Your task to perform on an android device: Search for macbook pro on walmart, select the first entry, and add it to the cart. Image 0: 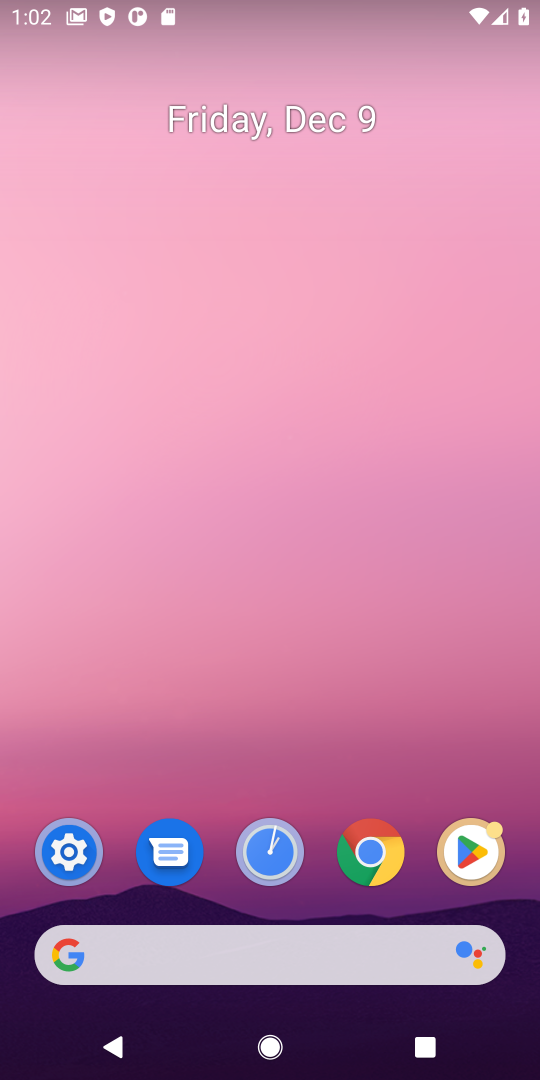
Step 0: click (379, 851)
Your task to perform on an android device: Search for macbook pro on walmart, select the first entry, and add it to the cart. Image 1: 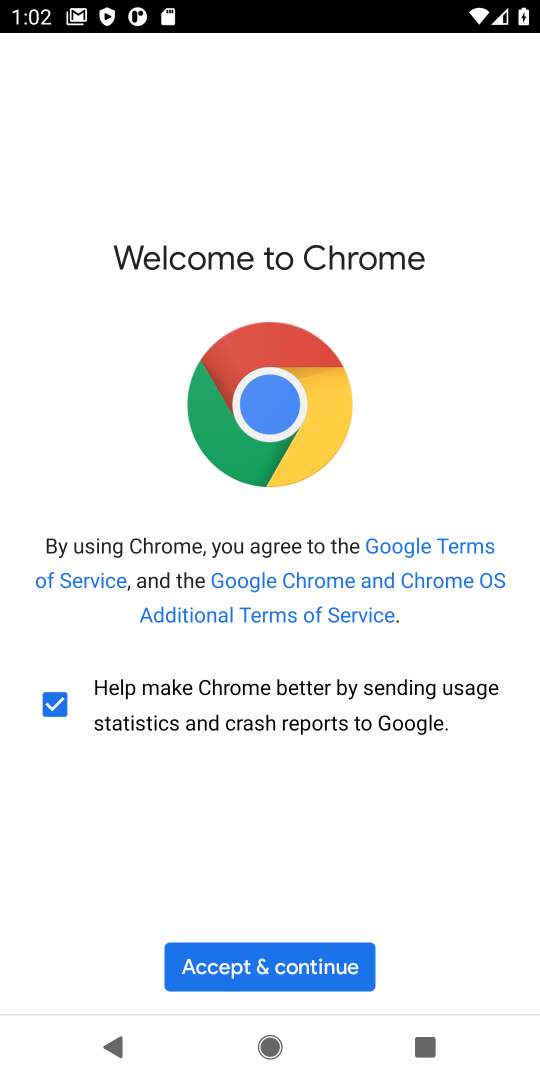
Step 1: click (291, 971)
Your task to perform on an android device: Search for macbook pro on walmart, select the first entry, and add it to the cart. Image 2: 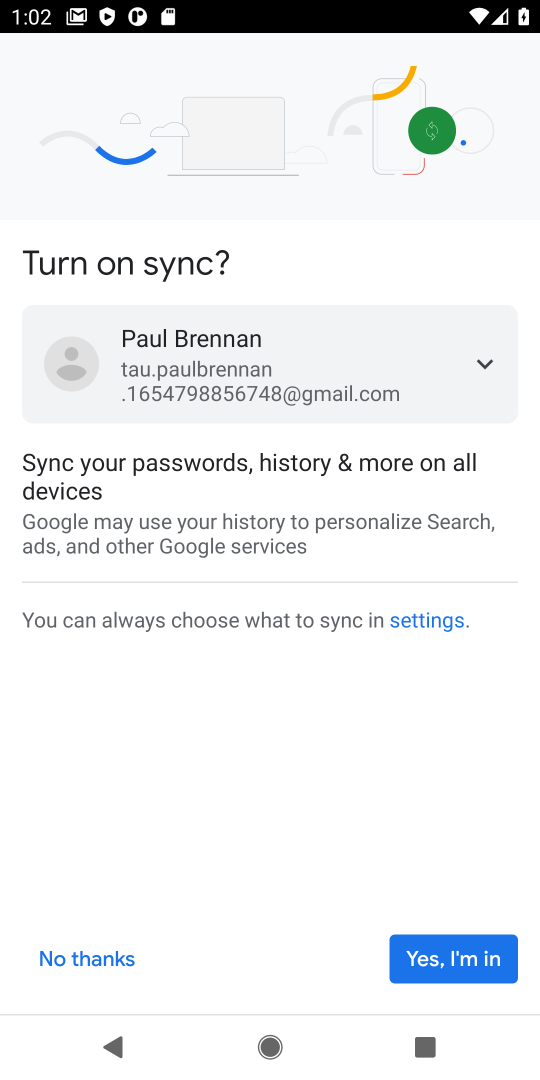
Step 2: click (426, 946)
Your task to perform on an android device: Search for macbook pro on walmart, select the first entry, and add it to the cart. Image 3: 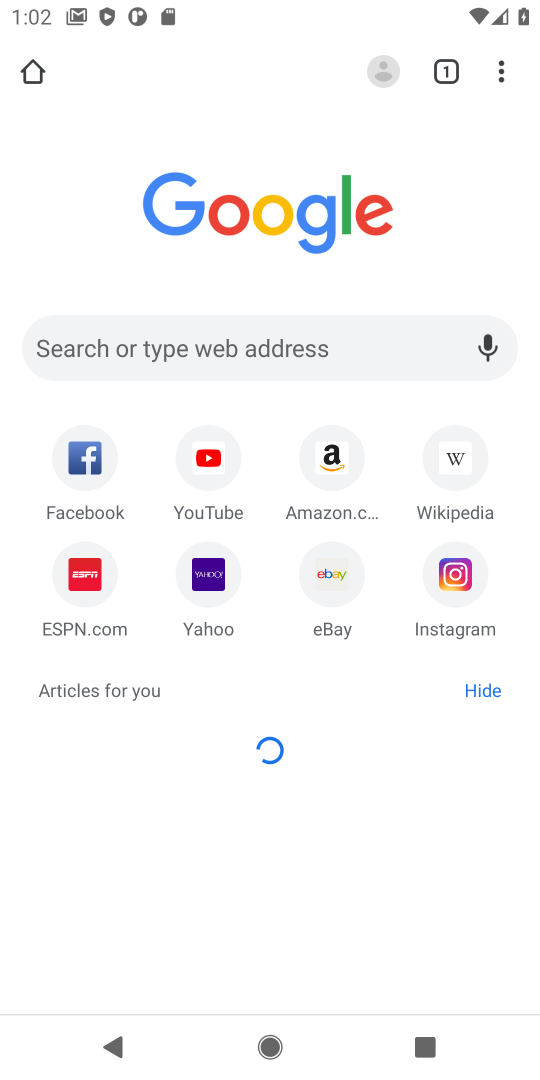
Step 3: click (226, 957)
Your task to perform on an android device: Search for macbook pro on walmart, select the first entry, and add it to the cart. Image 4: 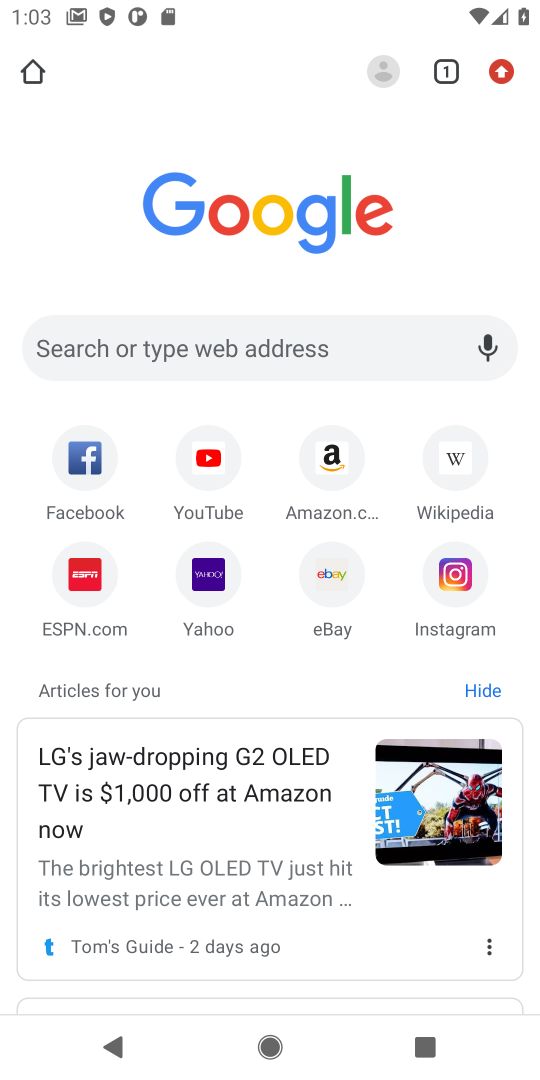
Step 4: click (174, 349)
Your task to perform on an android device: Search for macbook pro on walmart, select the first entry, and add it to the cart. Image 5: 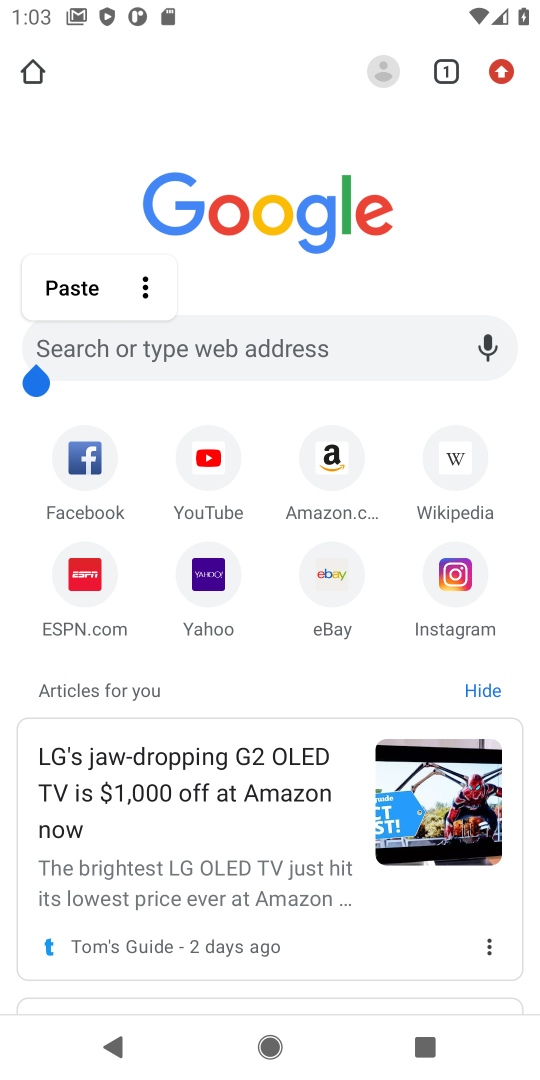
Step 5: click (174, 348)
Your task to perform on an android device: Search for macbook pro on walmart, select the first entry, and add it to the cart. Image 6: 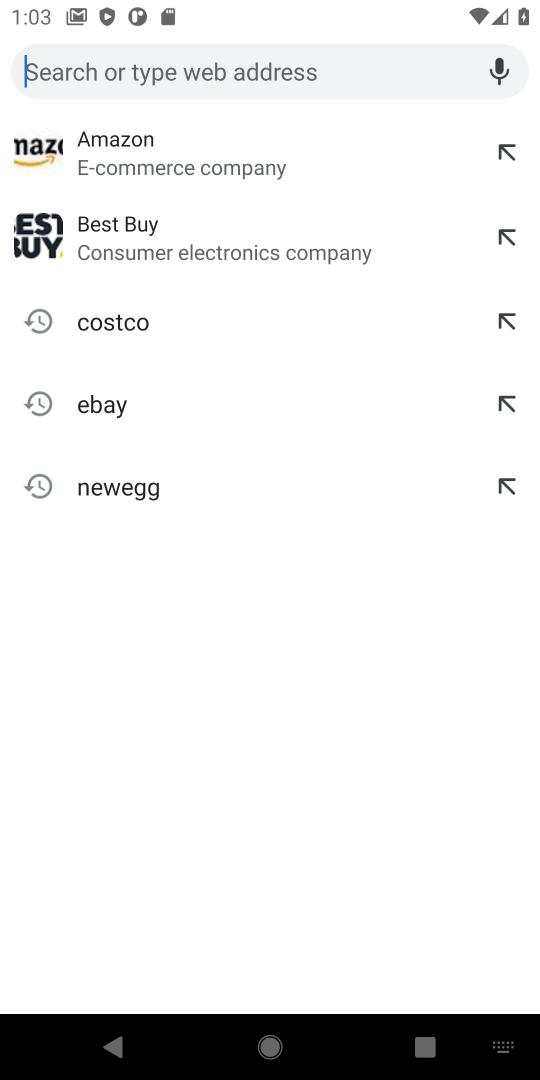
Step 6: type "walmart"
Your task to perform on an android device: Search for macbook pro on walmart, select the first entry, and add it to the cart. Image 7: 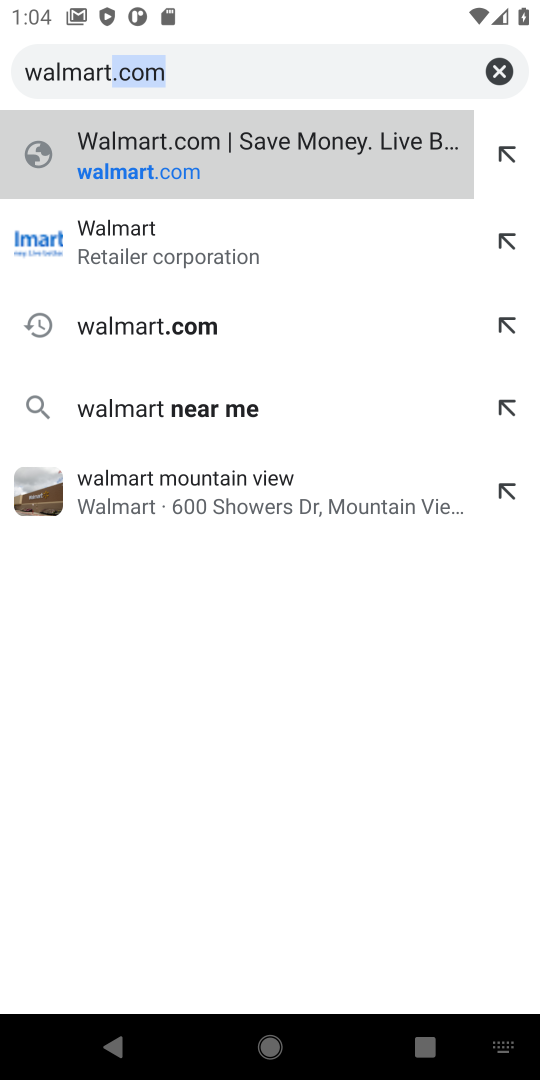
Step 7: click (150, 162)
Your task to perform on an android device: Search for macbook pro on walmart, select the first entry, and add it to the cart. Image 8: 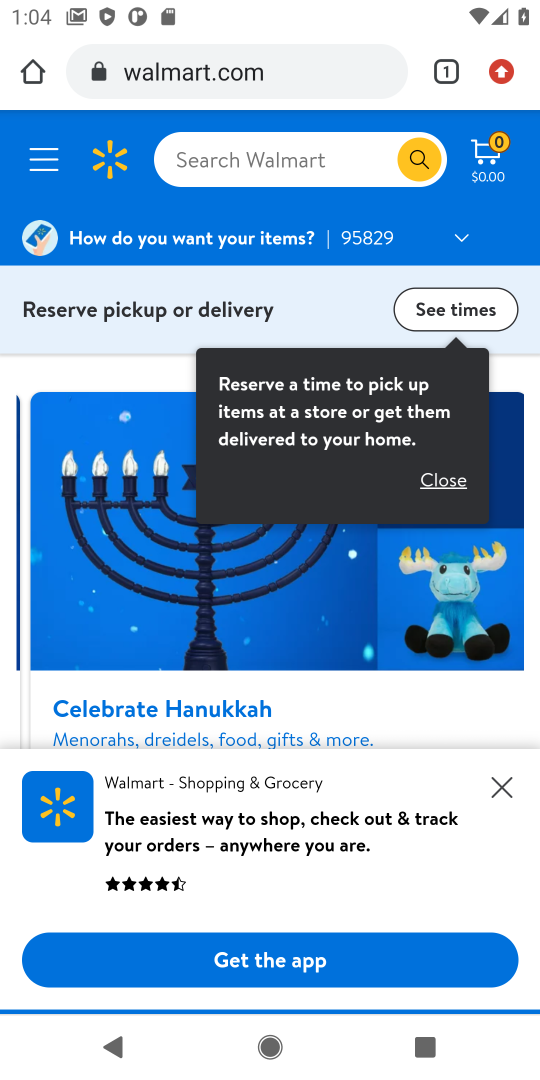
Step 8: click (224, 159)
Your task to perform on an android device: Search for macbook pro on walmart, select the first entry, and add it to the cart. Image 9: 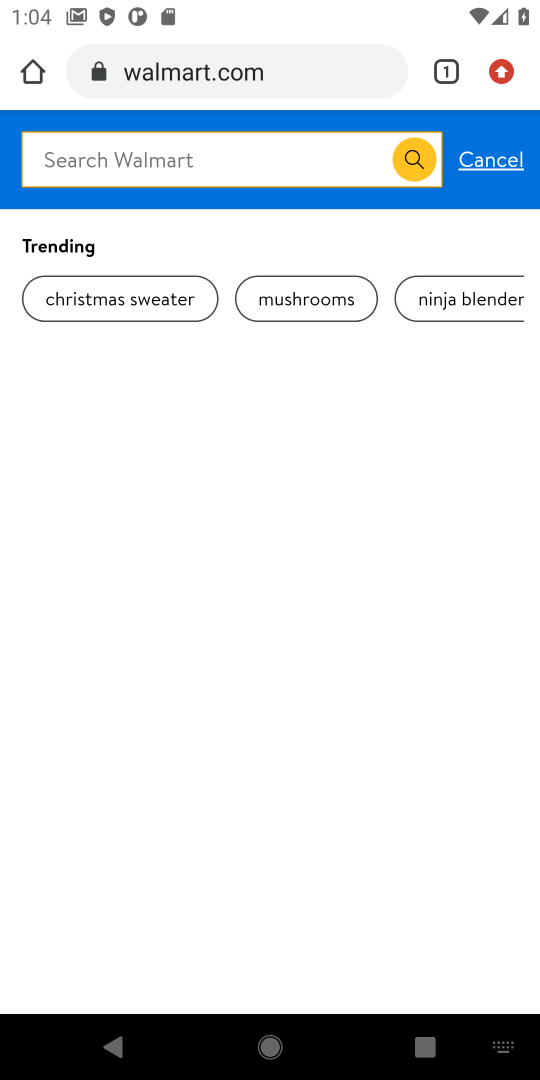
Step 9: type "macbook pro"
Your task to perform on an android device: Search for macbook pro on walmart, select the first entry, and add it to the cart. Image 10: 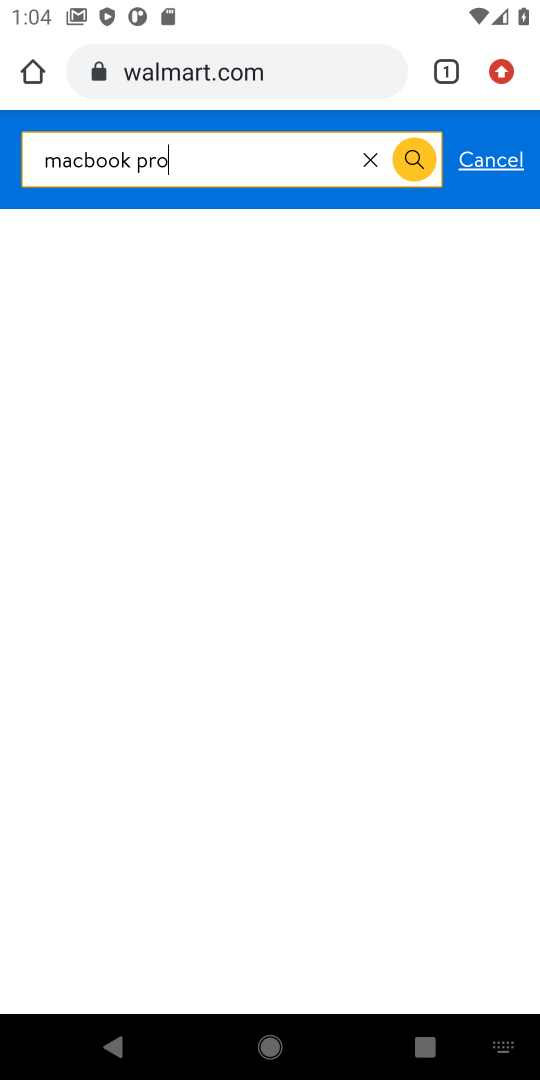
Step 10: press enter
Your task to perform on an android device: Search for macbook pro on walmart, select the first entry, and add it to the cart. Image 11: 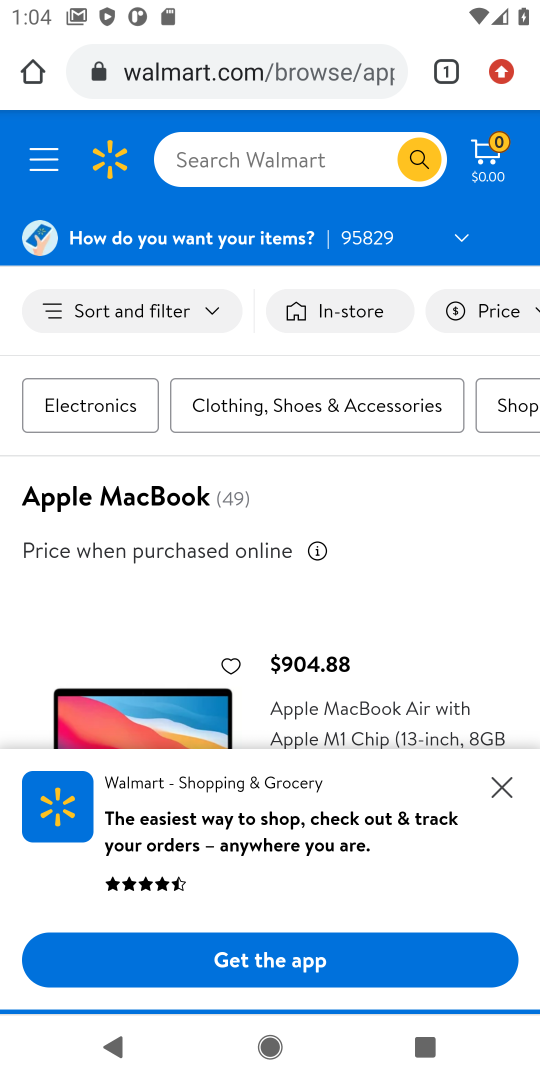
Step 11: drag from (354, 597) to (320, 336)
Your task to perform on an android device: Search for macbook pro on walmart, select the first entry, and add it to the cart. Image 12: 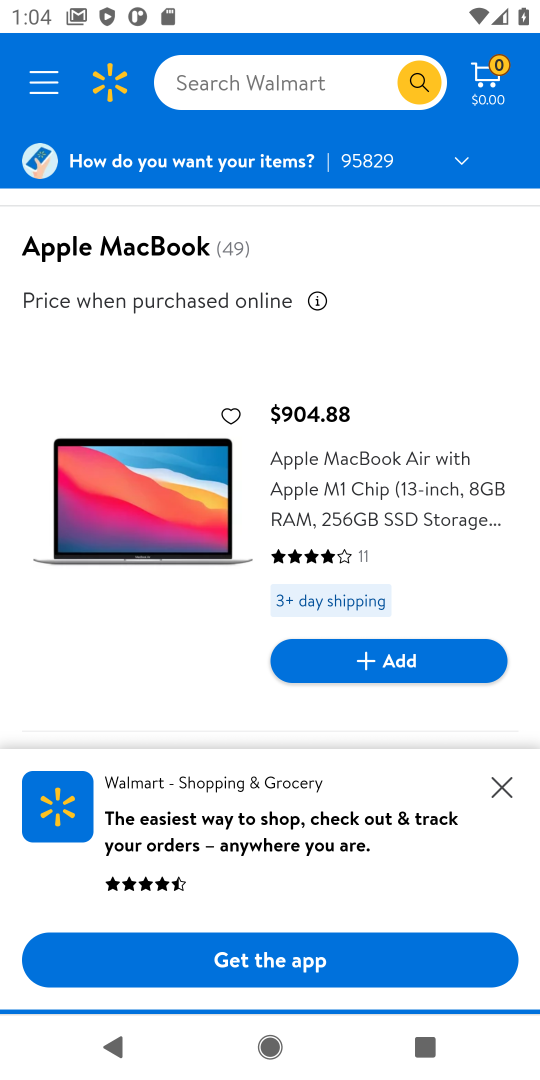
Step 12: click (405, 671)
Your task to perform on an android device: Search for macbook pro on walmart, select the first entry, and add it to the cart. Image 13: 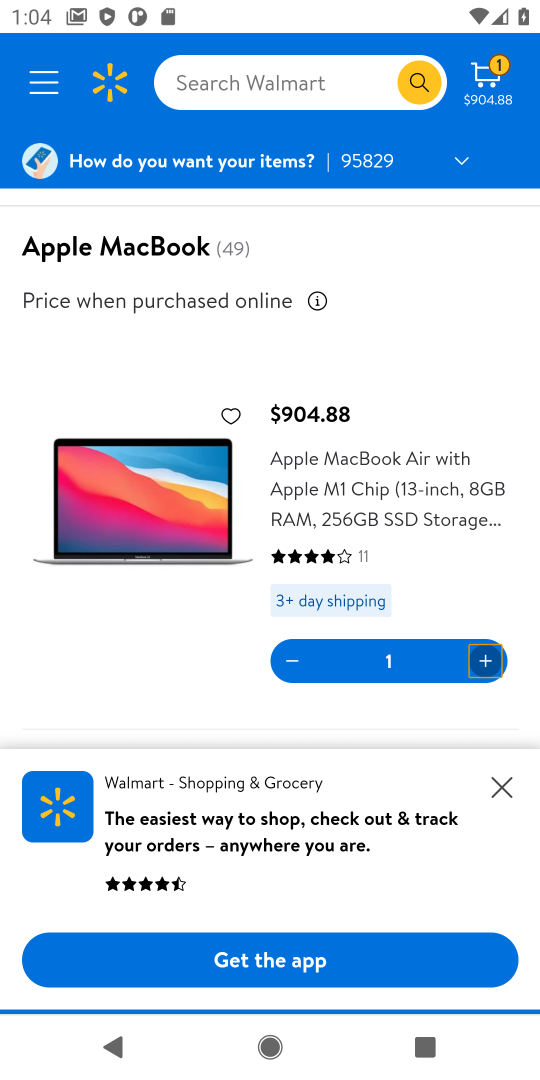
Step 13: click (498, 798)
Your task to perform on an android device: Search for macbook pro on walmart, select the first entry, and add it to the cart. Image 14: 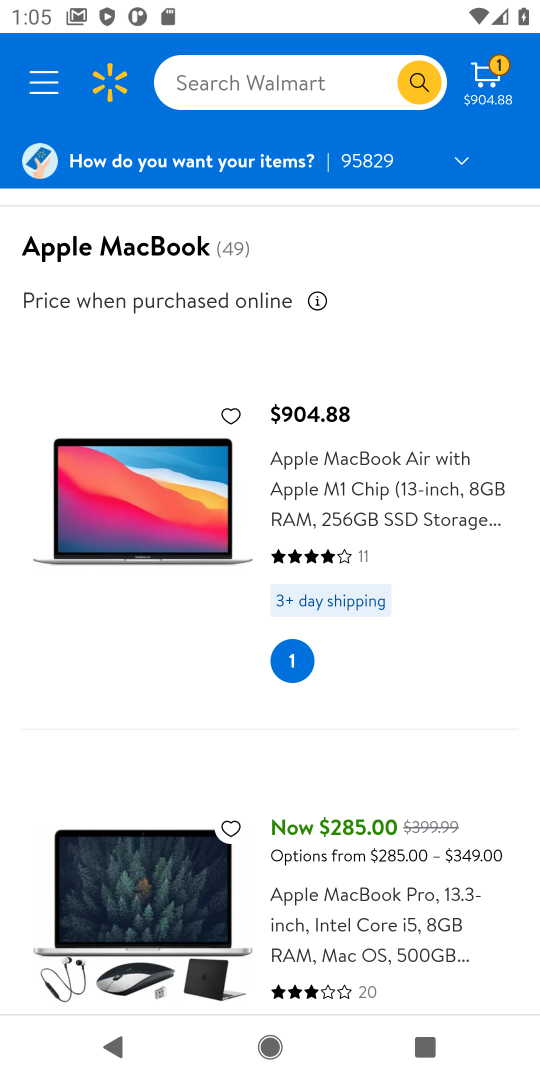
Step 14: click (150, 500)
Your task to perform on an android device: Search for macbook pro on walmart, select the first entry, and add it to the cart. Image 15: 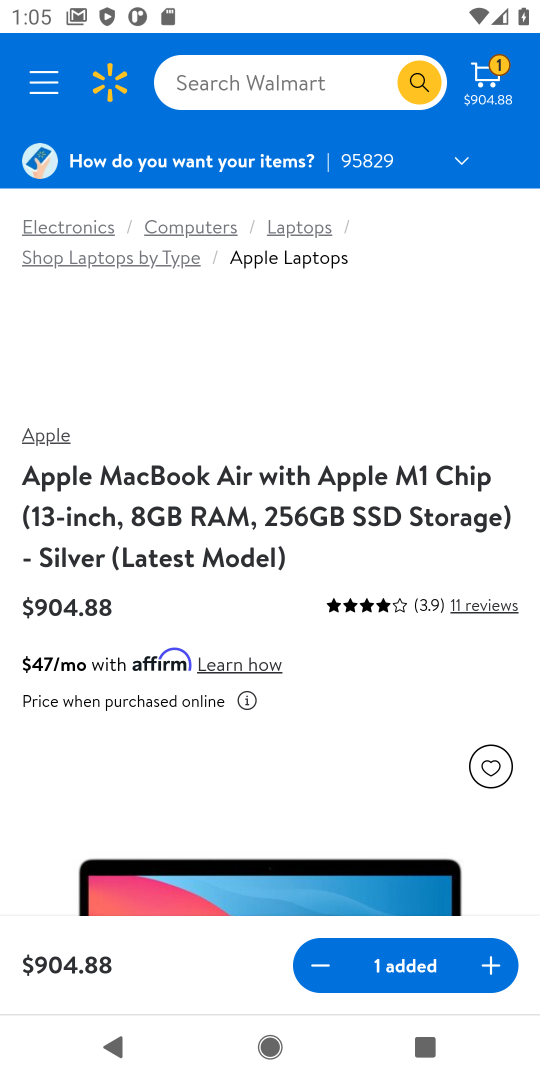
Step 15: click (316, 972)
Your task to perform on an android device: Search for macbook pro on walmart, select the first entry, and add it to the cart. Image 16: 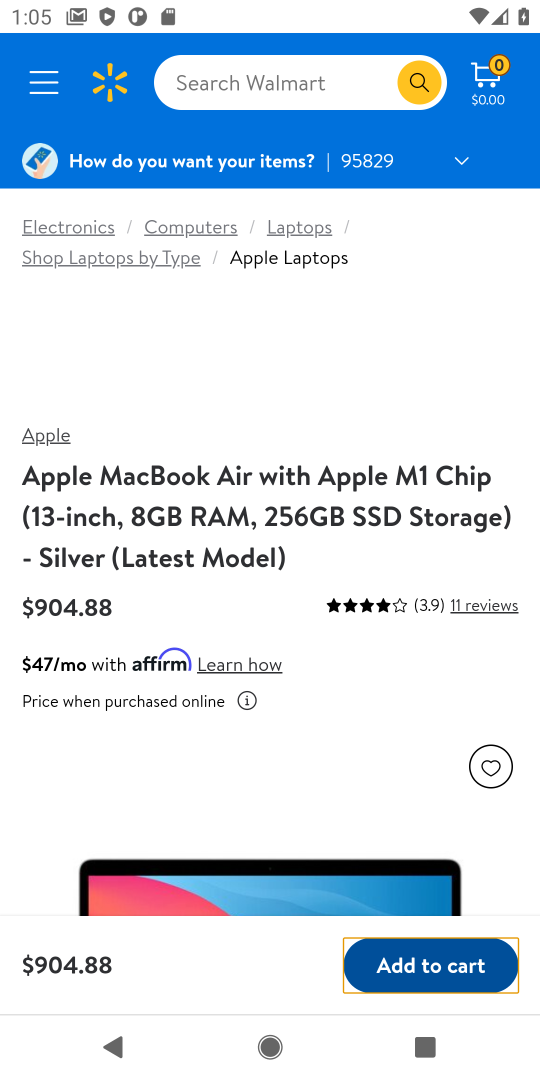
Step 16: click (474, 971)
Your task to perform on an android device: Search for macbook pro on walmart, select the first entry, and add it to the cart. Image 17: 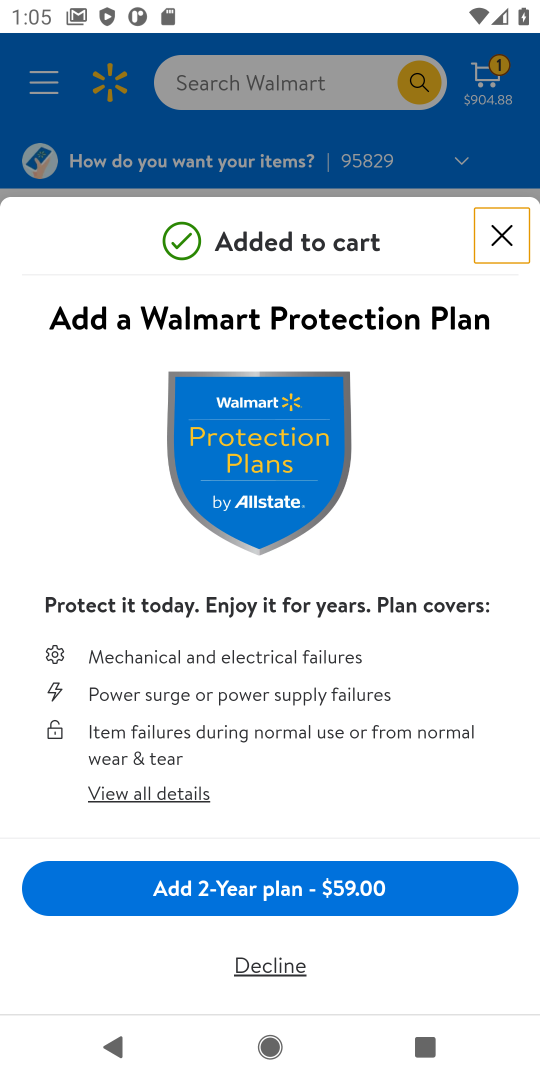
Step 17: click (311, 894)
Your task to perform on an android device: Search for macbook pro on walmart, select the first entry, and add it to the cart. Image 18: 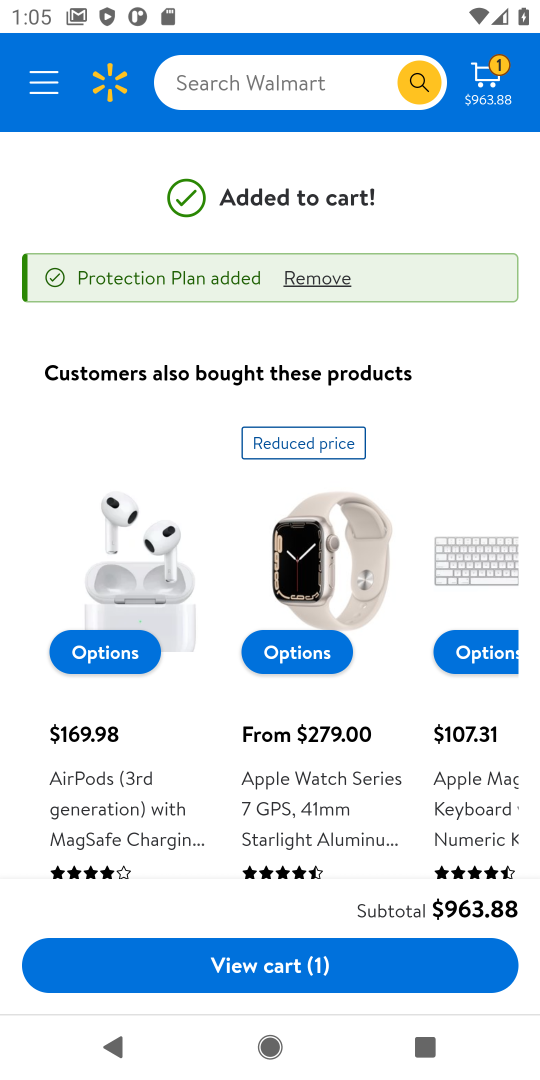
Step 18: click (269, 956)
Your task to perform on an android device: Search for macbook pro on walmart, select the first entry, and add it to the cart. Image 19: 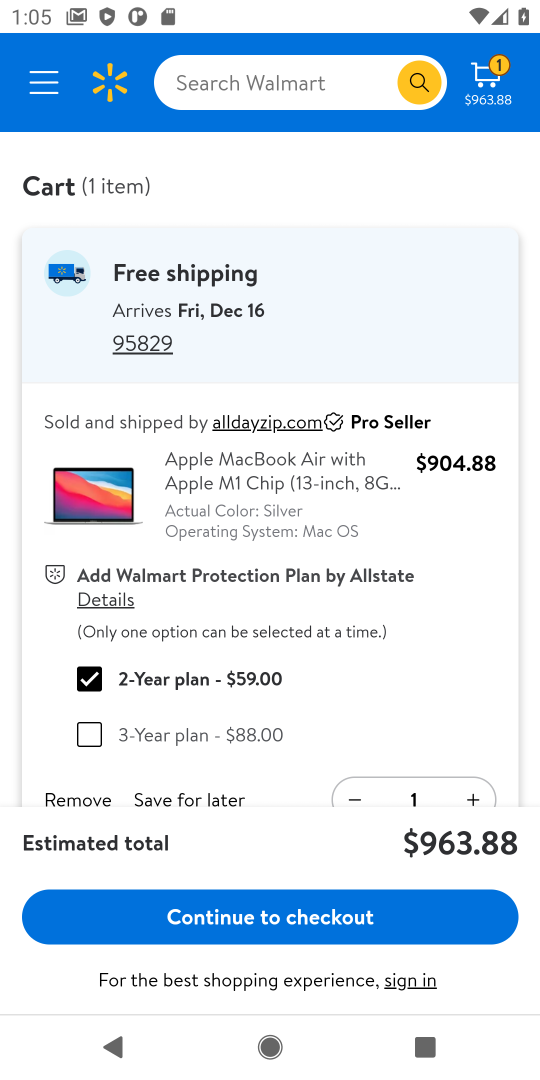
Step 19: task complete